Your task to perform on an android device: choose inbox layout in the gmail app Image 0: 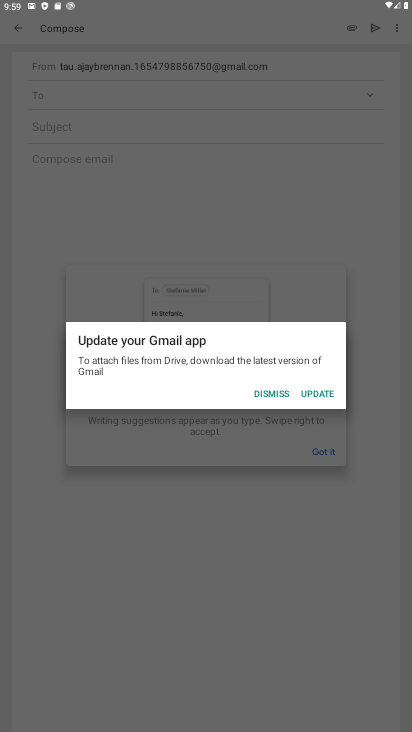
Step 0: click (284, 393)
Your task to perform on an android device: choose inbox layout in the gmail app Image 1: 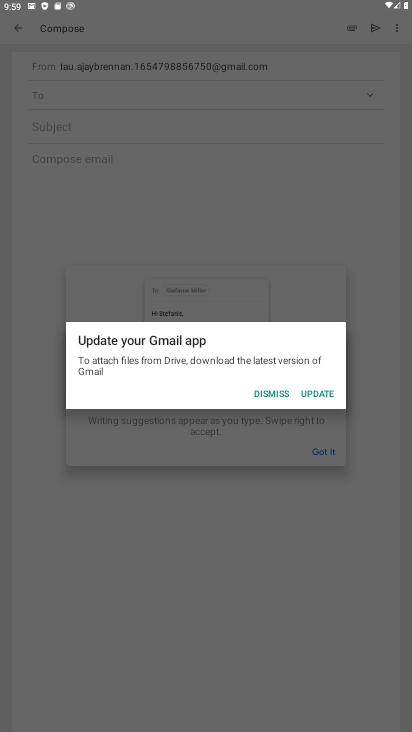
Step 1: click (276, 389)
Your task to perform on an android device: choose inbox layout in the gmail app Image 2: 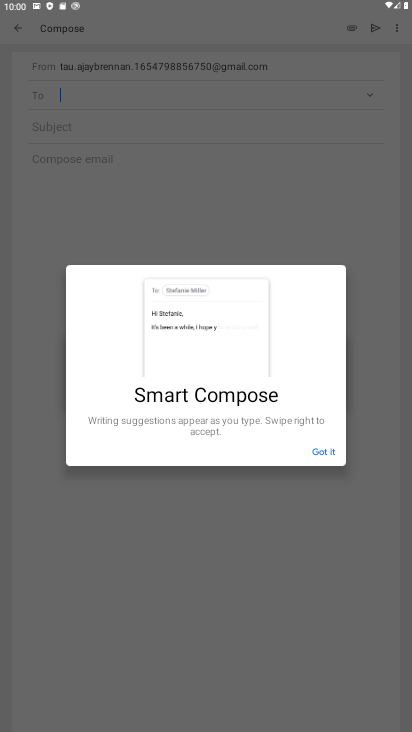
Step 2: click (316, 437)
Your task to perform on an android device: choose inbox layout in the gmail app Image 3: 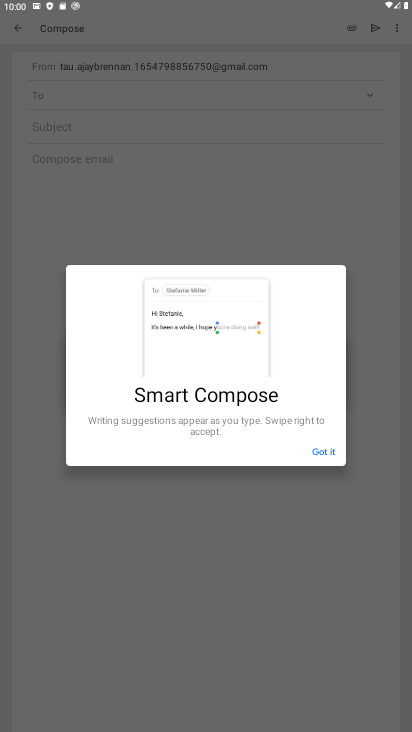
Step 3: click (316, 436)
Your task to perform on an android device: choose inbox layout in the gmail app Image 4: 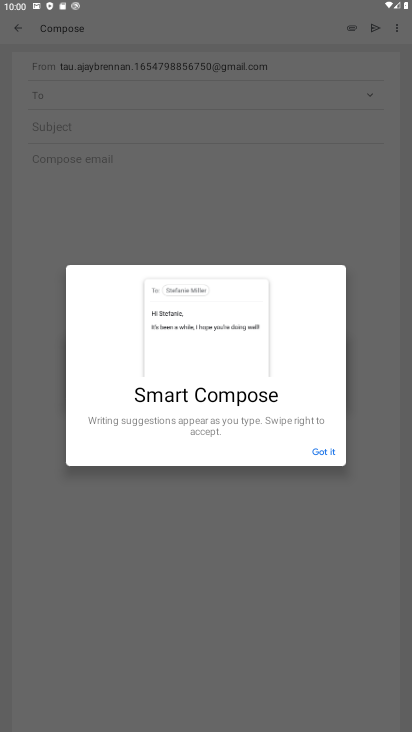
Step 4: click (325, 450)
Your task to perform on an android device: choose inbox layout in the gmail app Image 5: 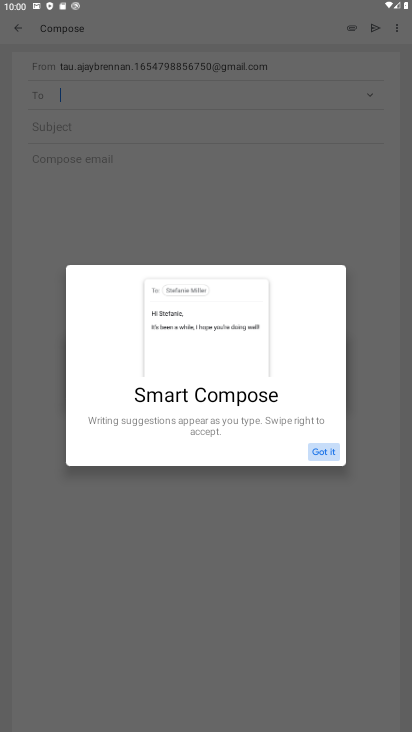
Step 5: click (323, 450)
Your task to perform on an android device: choose inbox layout in the gmail app Image 6: 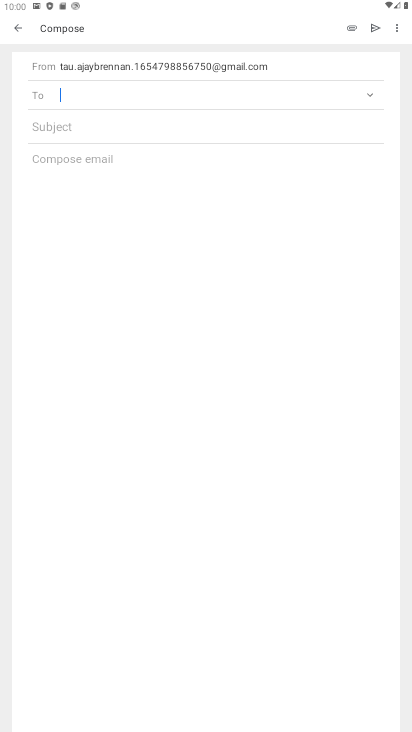
Step 6: press back button
Your task to perform on an android device: choose inbox layout in the gmail app Image 7: 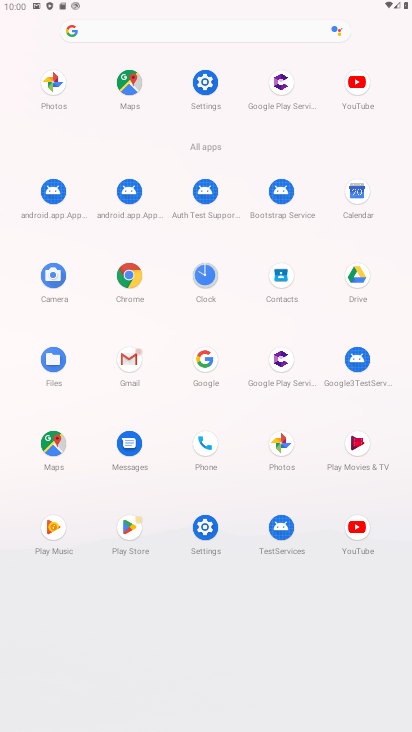
Step 7: click (138, 362)
Your task to perform on an android device: choose inbox layout in the gmail app Image 8: 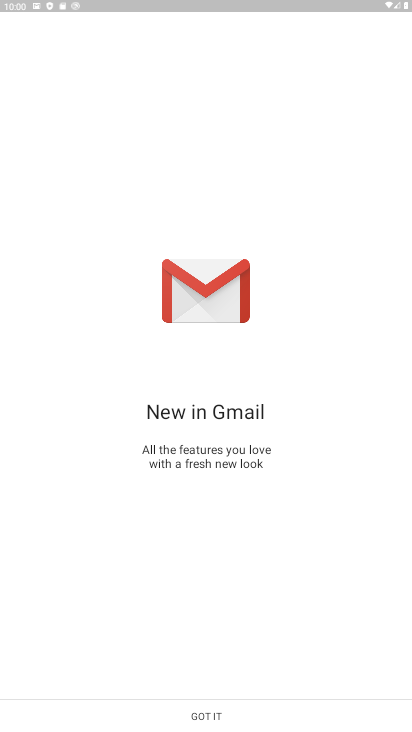
Step 8: click (320, 633)
Your task to perform on an android device: choose inbox layout in the gmail app Image 9: 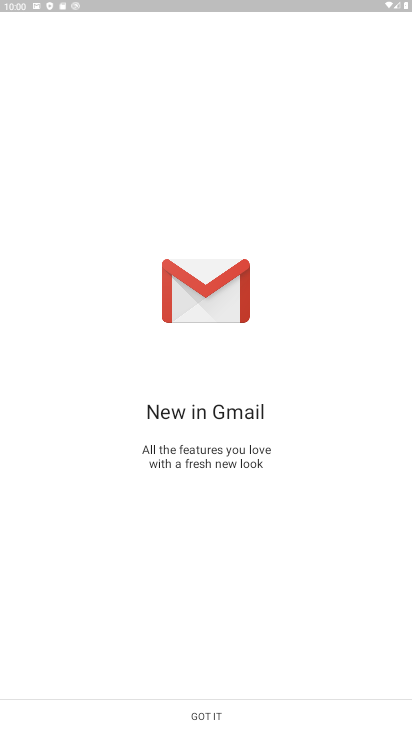
Step 9: click (200, 702)
Your task to perform on an android device: choose inbox layout in the gmail app Image 10: 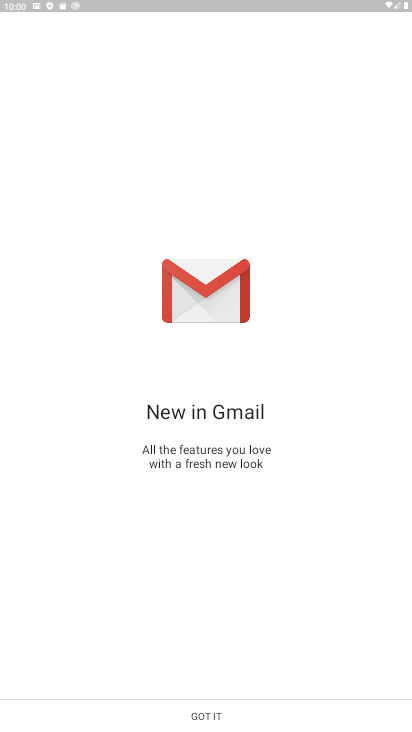
Step 10: click (204, 703)
Your task to perform on an android device: choose inbox layout in the gmail app Image 11: 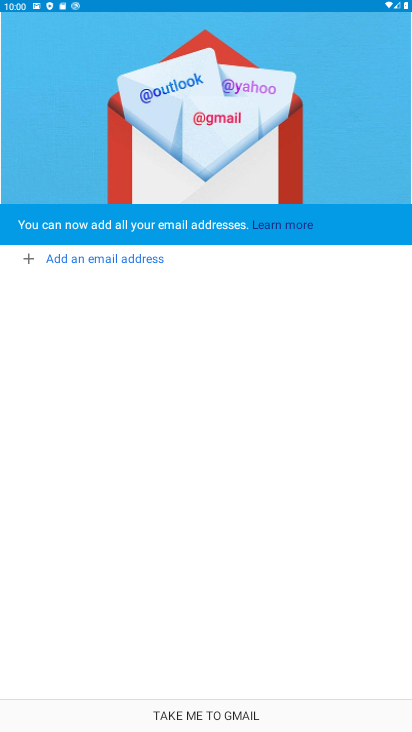
Step 11: click (209, 721)
Your task to perform on an android device: choose inbox layout in the gmail app Image 12: 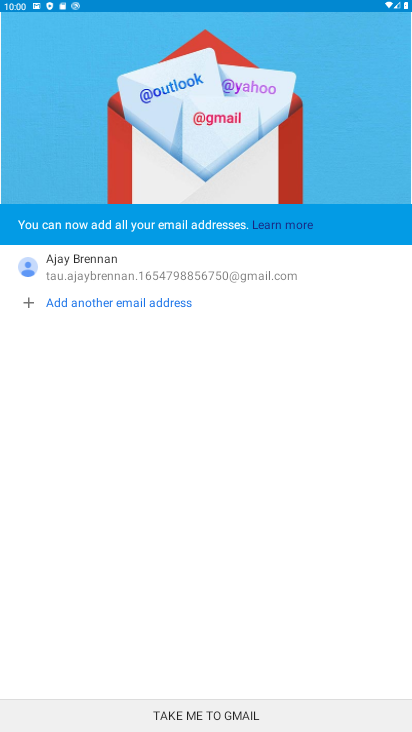
Step 12: click (221, 704)
Your task to perform on an android device: choose inbox layout in the gmail app Image 13: 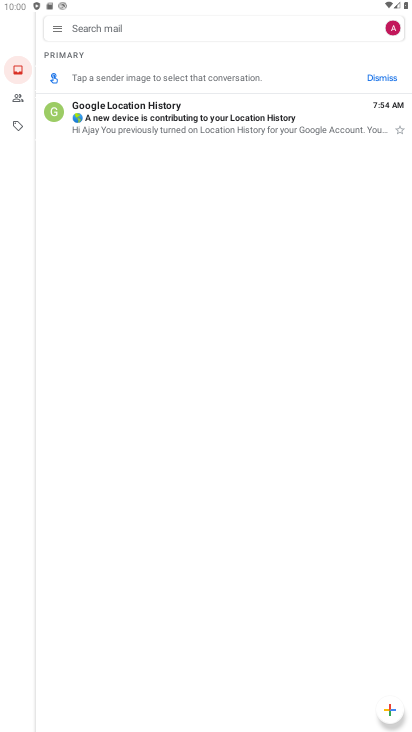
Step 13: click (52, 31)
Your task to perform on an android device: choose inbox layout in the gmail app Image 14: 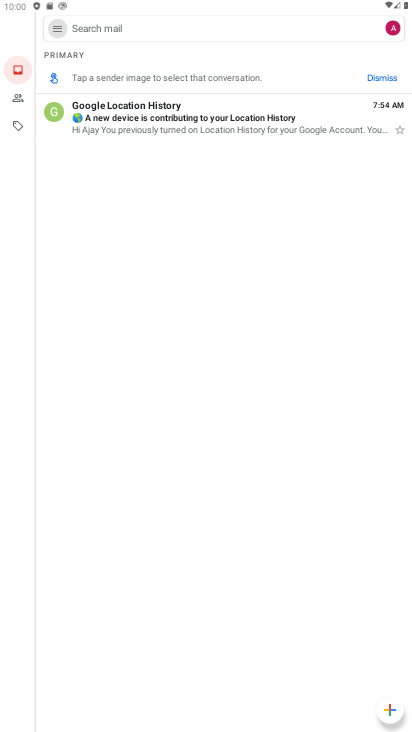
Step 14: click (53, 30)
Your task to perform on an android device: choose inbox layout in the gmail app Image 15: 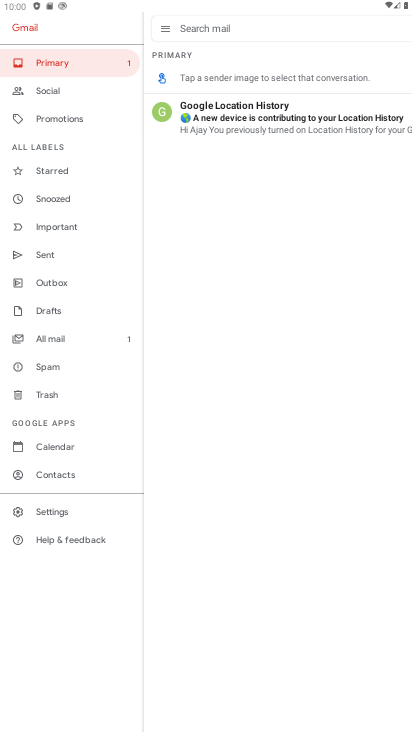
Step 15: click (50, 511)
Your task to perform on an android device: choose inbox layout in the gmail app Image 16: 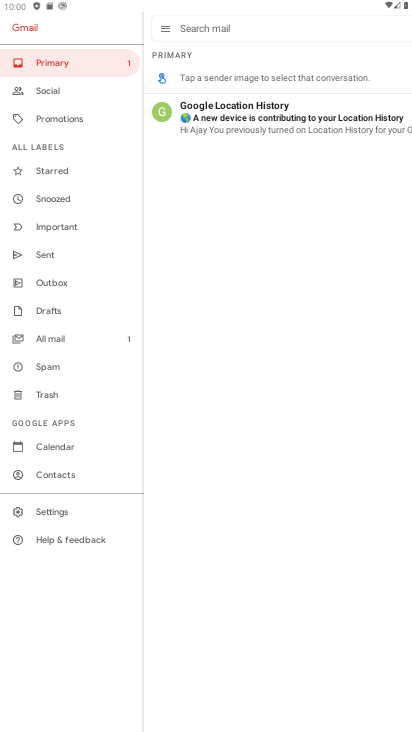
Step 16: click (50, 511)
Your task to perform on an android device: choose inbox layout in the gmail app Image 17: 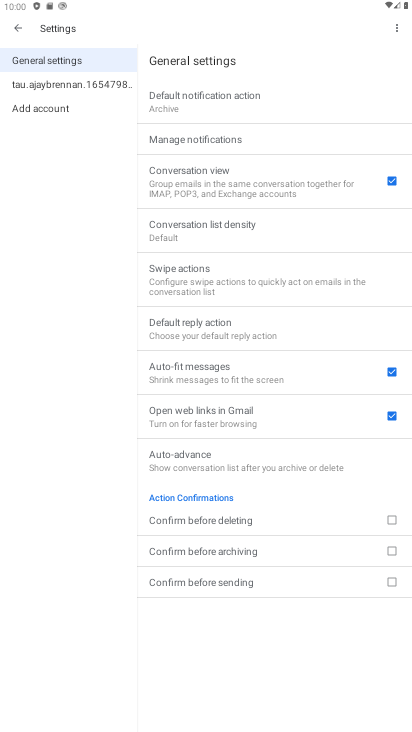
Step 17: click (53, 513)
Your task to perform on an android device: choose inbox layout in the gmail app Image 18: 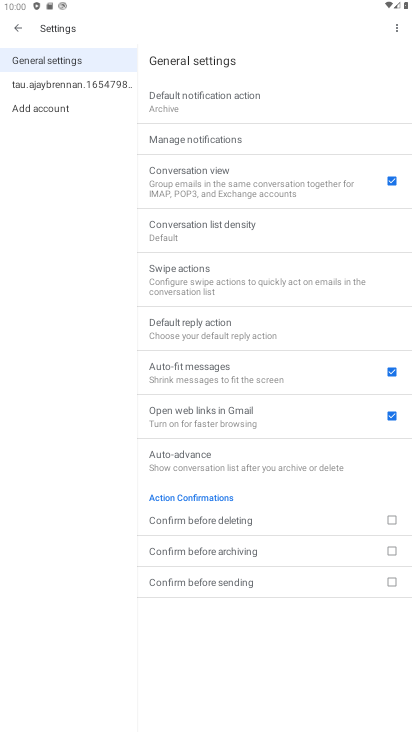
Step 18: click (46, 87)
Your task to perform on an android device: choose inbox layout in the gmail app Image 19: 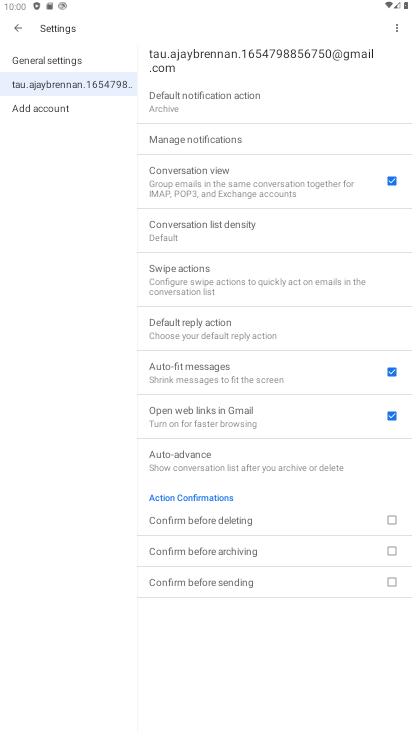
Step 19: click (47, 82)
Your task to perform on an android device: choose inbox layout in the gmail app Image 20: 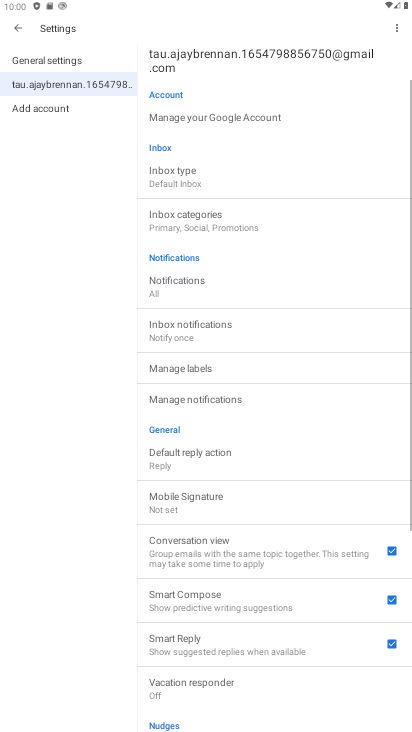
Step 20: click (47, 82)
Your task to perform on an android device: choose inbox layout in the gmail app Image 21: 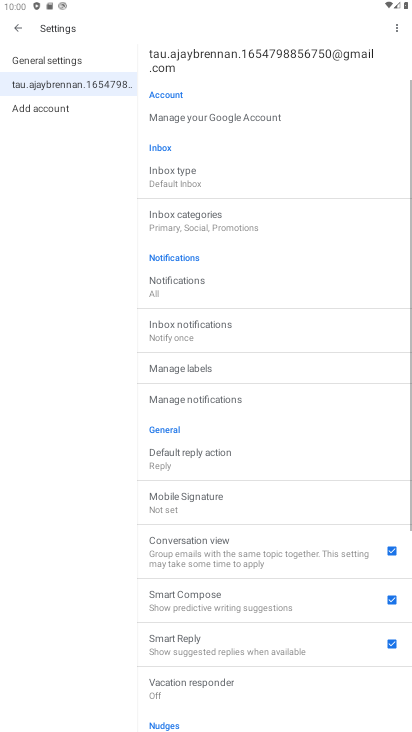
Step 21: click (47, 82)
Your task to perform on an android device: choose inbox layout in the gmail app Image 22: 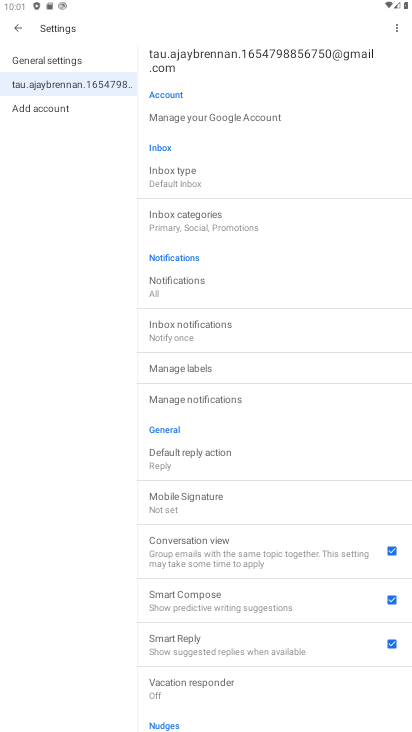
Step 22: click (180, 180)
Your task to perform on an android device: choose inbox layout in the gmail app Image 23: 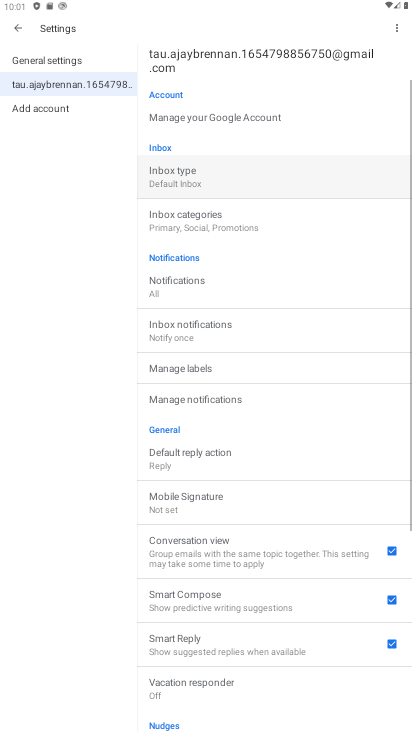
Step 23: click (179, 178)
Your task to perform on an android device: choose inbox layout in the gmail app Image 24: 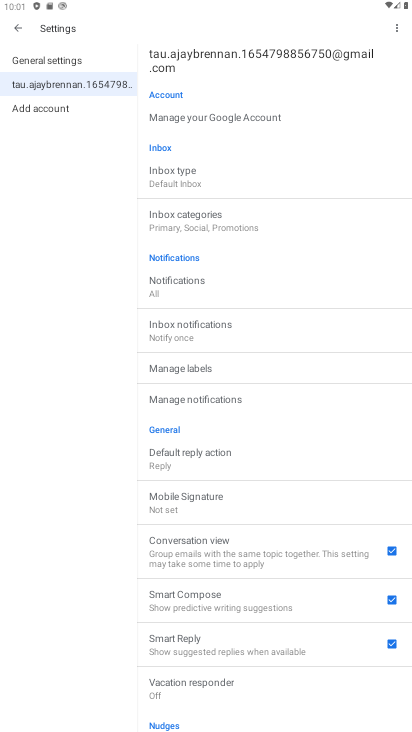
Step 24: click (181, 178)
Your task to perform on an android device: choose inbox layout in the gmail app Image 25: 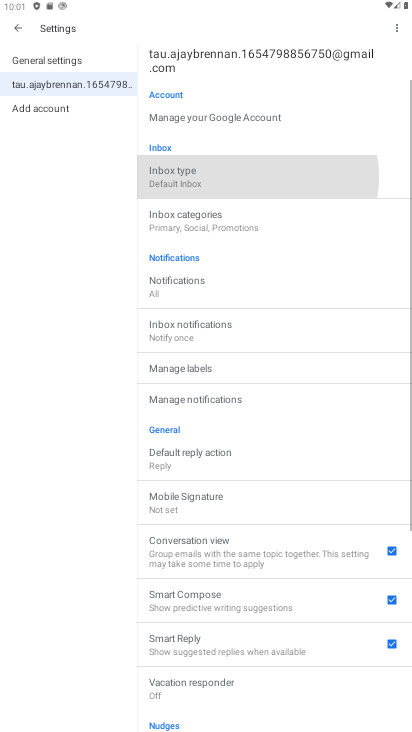
Step 25: click (181, 181)
Your task to perform on an android device: choose inbox layout in the gmail app Image 26: 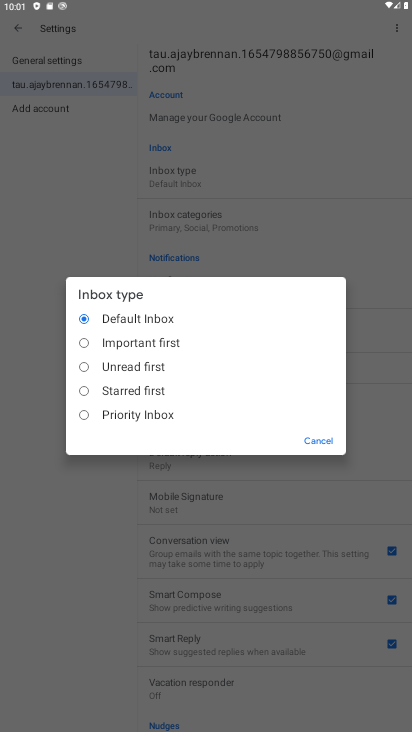
Step 26: click (318, 435)
Your task to perform on an android device: choose inbox layout in the gmail app Image 27: 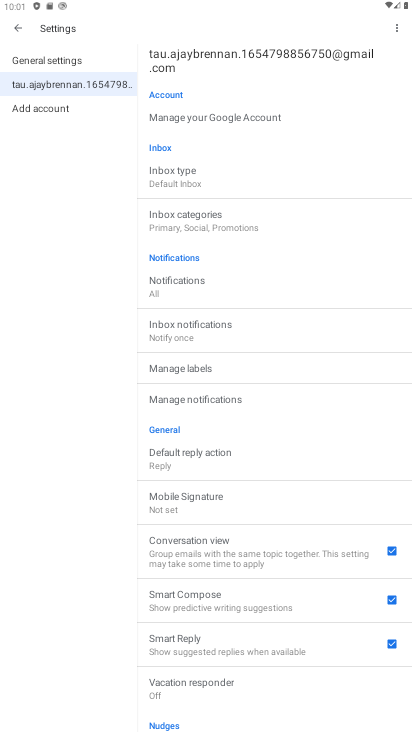
Step 27: task complete